Your task to perform on an android device: turn off smart reply in the gmail app Image 0: 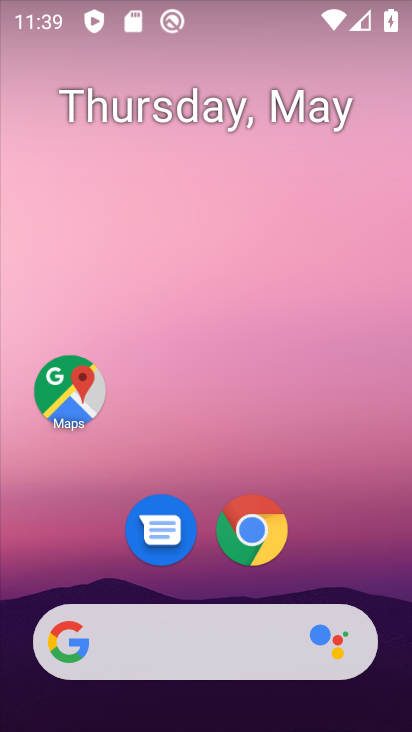
Step 0: drag from (225, 610) to (268, 186)
Your task to perform on an android device: turn off smart reply in the gmail app Image 1: 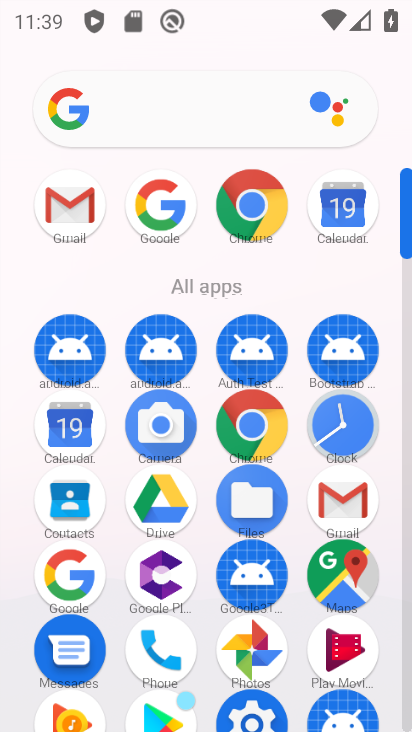
Step 1: click (81, 213)
Your task to perform on an android device: turn off smart reply in the gmail app Image 2: 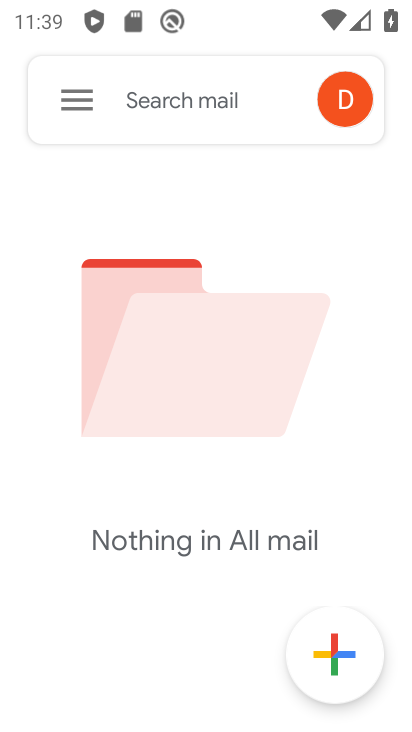
Step 2: click (76, 98)
Your task to perform on an android device: turn off smart reply in the gmail app Image 3: 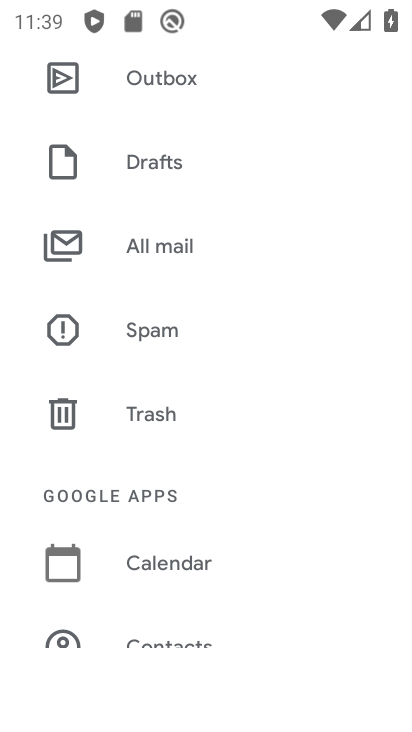
Step 3: drag from (177, 596) to (244, 295)
Your task to perform on an android device: turn off smart reply in the gmail app Image 4: 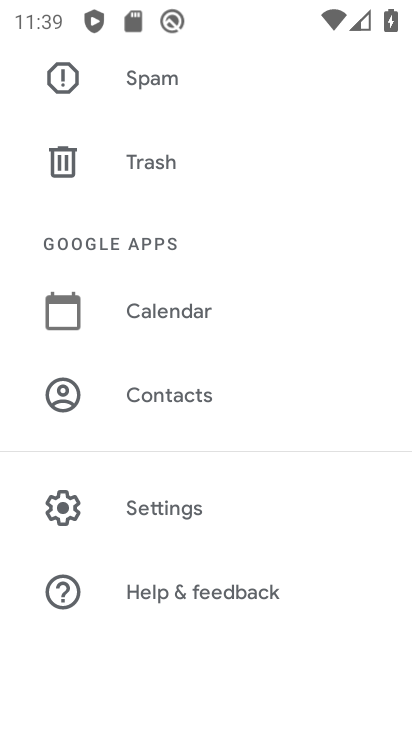
Step 4: click (186, 518)
Your task to perform on an android device: turn off smart reply in the gmail app Image 5: 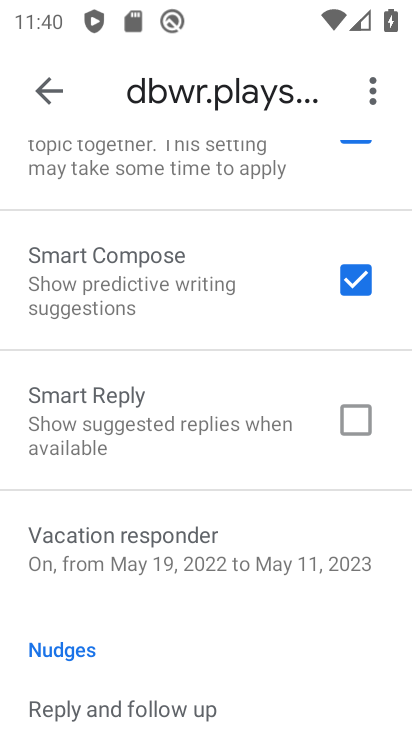
Step 5: task complete